Your task to perform on an android device: Clear the shopping cart on costco.com. Add razer blade to the cart on costco.com, then select checkout. Image 0: 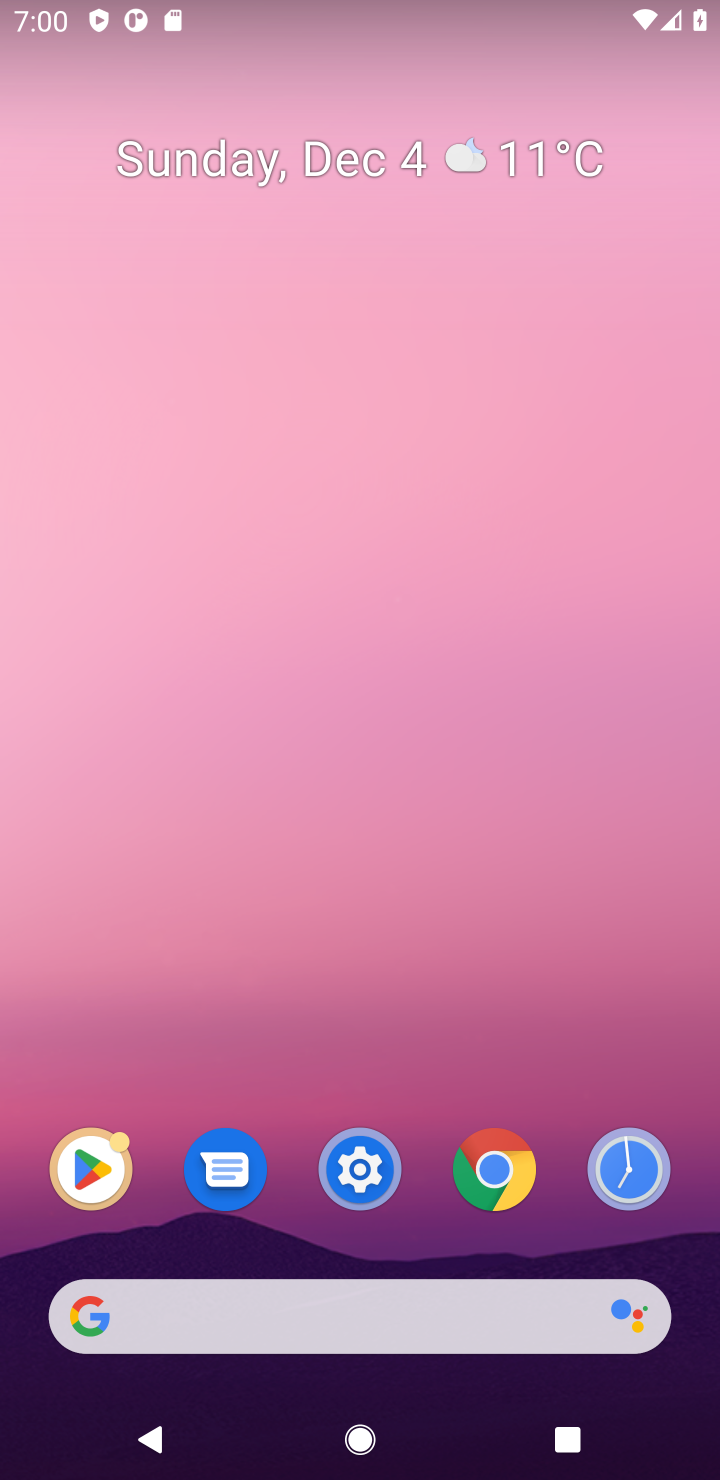
Step 0: drag from (442, 1378) to (399, 121)
Your task to perform on an android device: Clear the shopping cart on costco.com. Add razer blade to the cart on costco.com, then select checkout. Image 1: 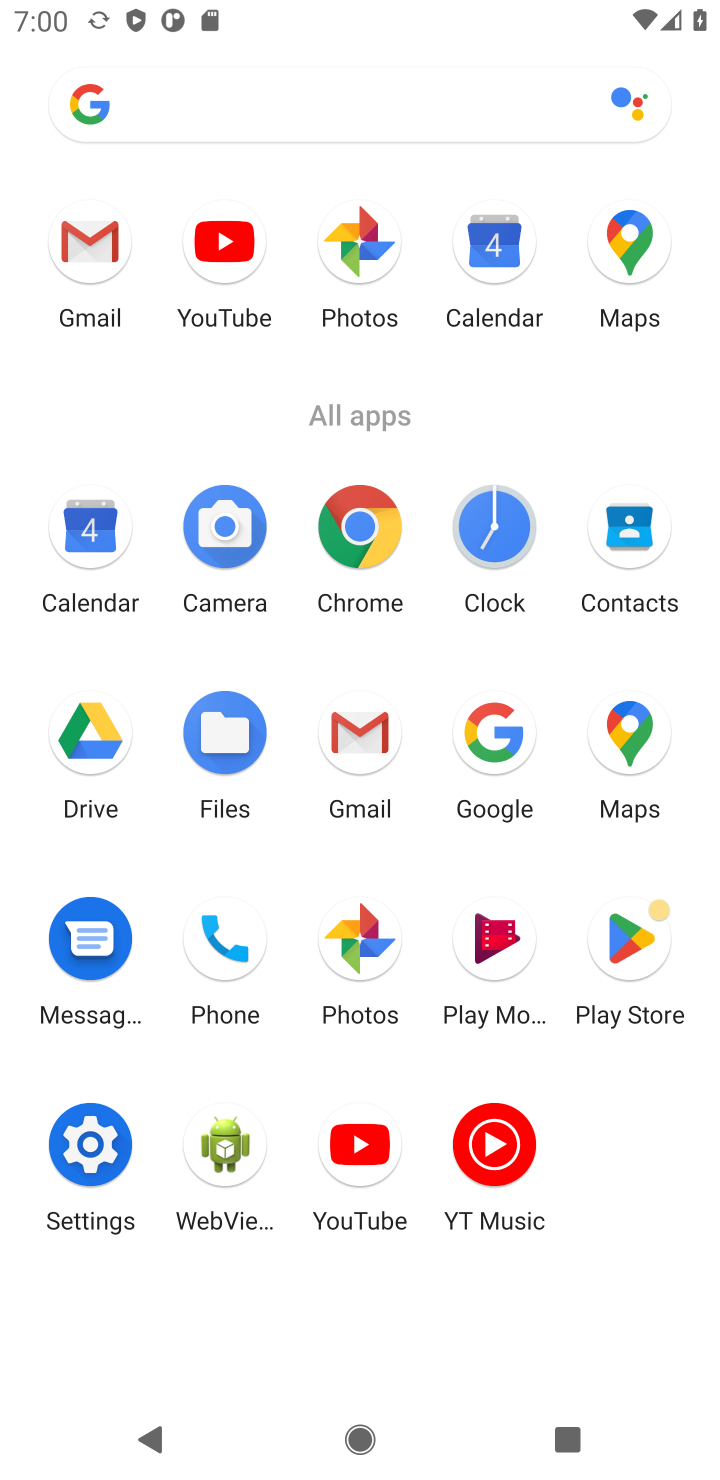
Step 1: click (354, 529)
Your task to perform on an android device: Clear the shopping cart on costco.com. Add razer blade to the cart on costco.com, then select checkout. Image 2: 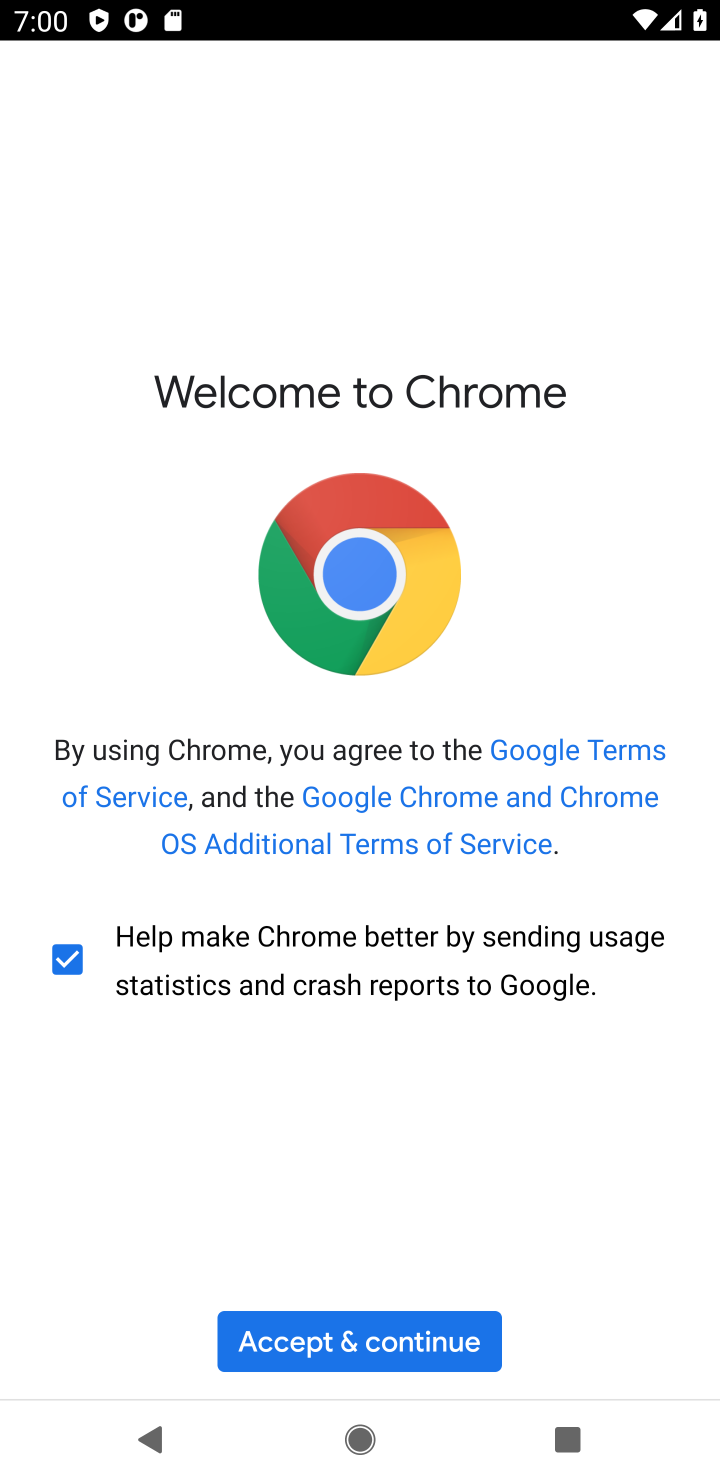
Step 2: click (325, 1336)
Your task to perform on an android device: Clear the shopping cart on costco.com. Add razer blade to the cart on costco.com, then select checkout. Image 3: 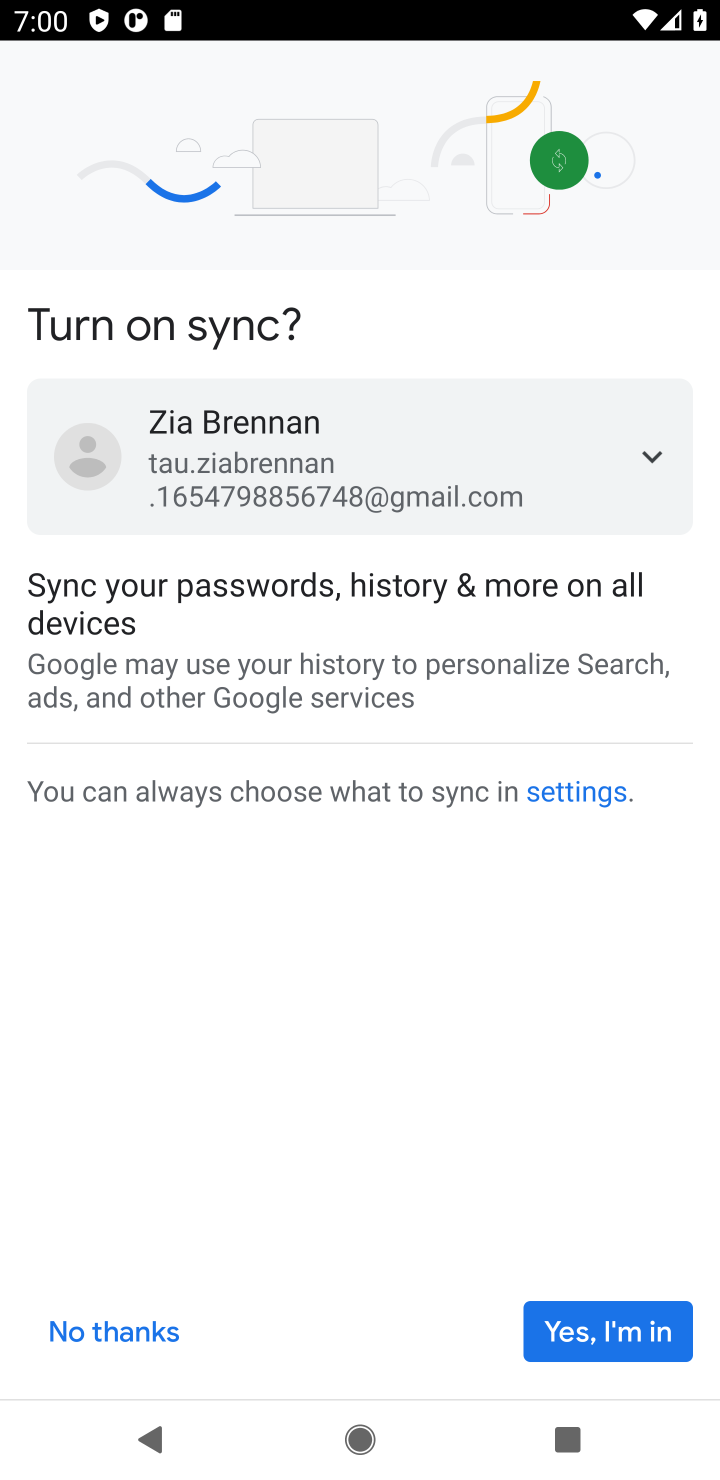
Step 3: click (609, 1333)
Your task to perform on an android device: Clear the shopping cart on costco.com. Add razer blade to the cart on costco.com, then select checkout. Image 4: 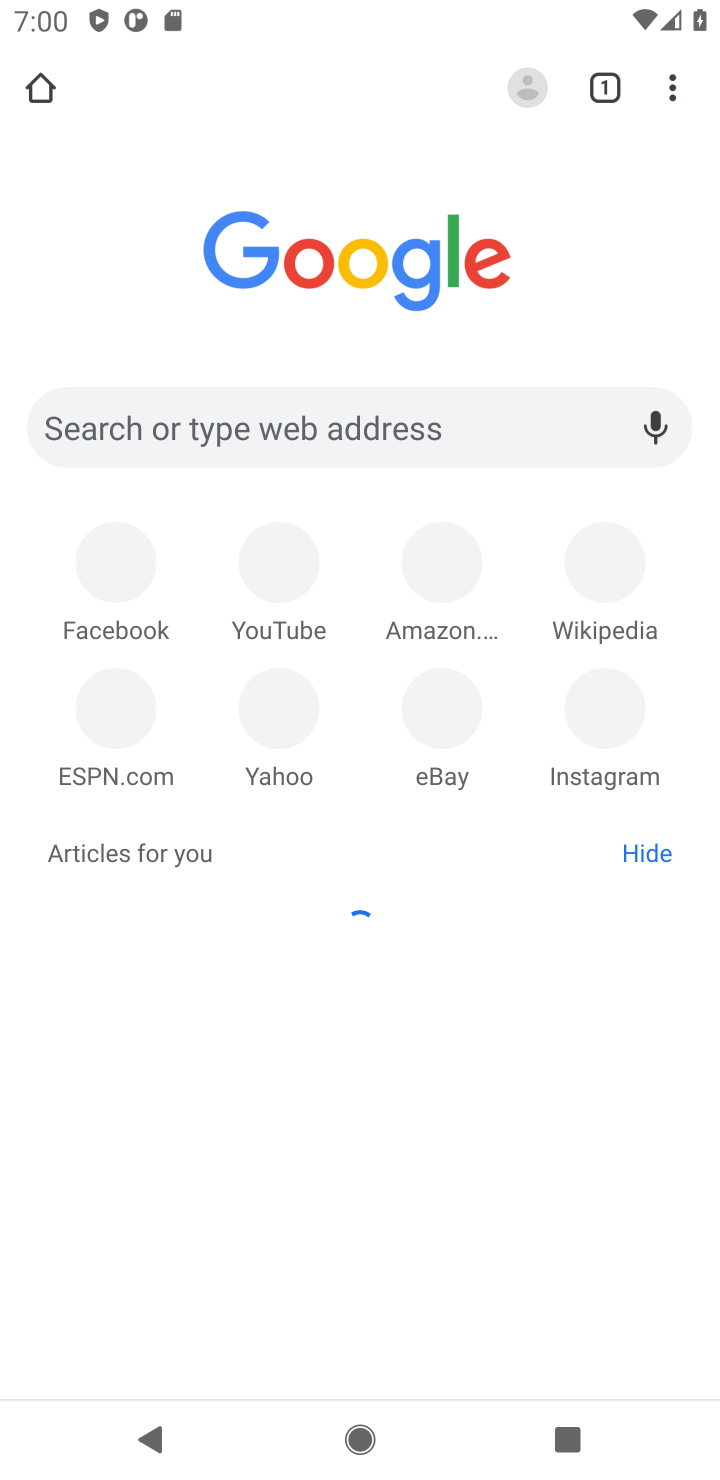
Step 4: click (173, 424)
Your task to perform on an android device: Clear the shopping cart on costco.com. Add razer blade to the cart on costco.com, then select checkout. Image 5: 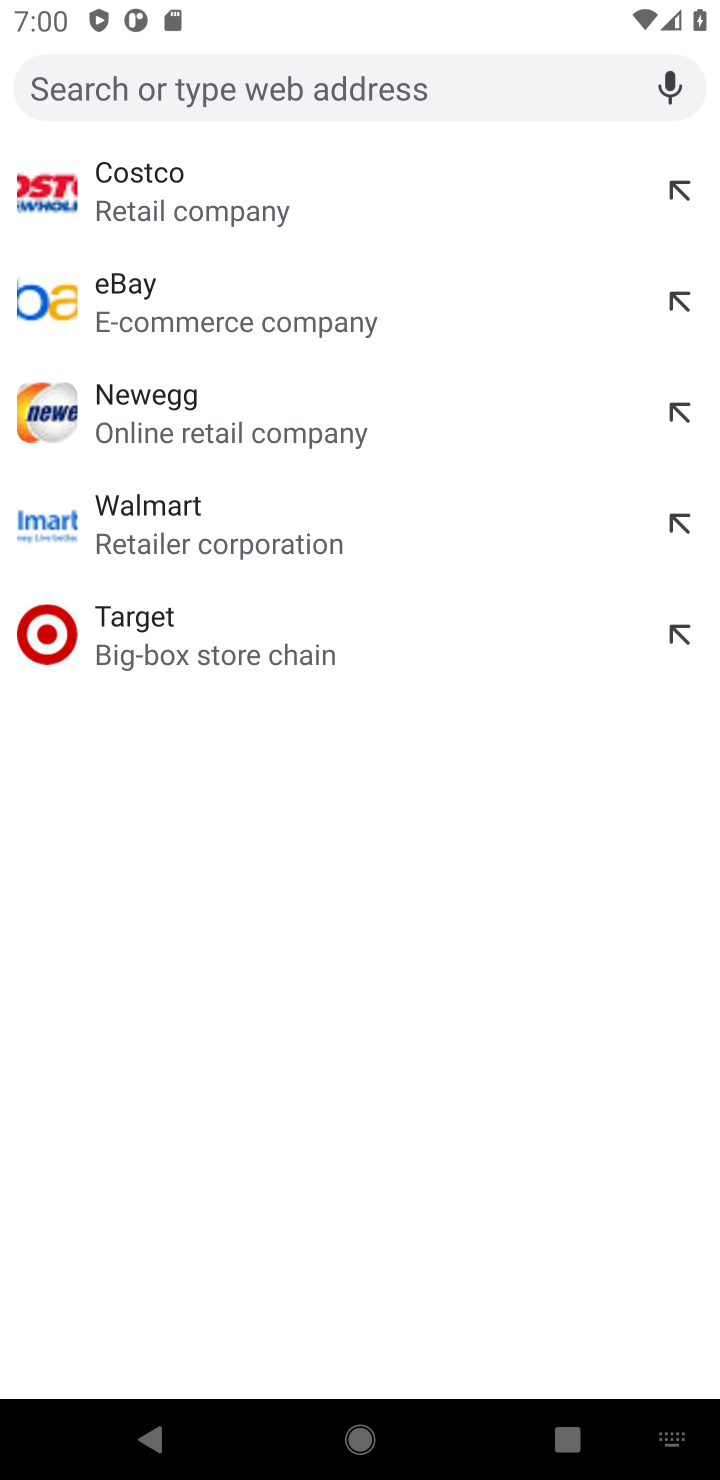
Step 5: type "costco.com"
Your task to perform on an android device: Clear the shopping cart on costco.com. Add razer blade to the cart on costco.com, then select checkout. Image 6: 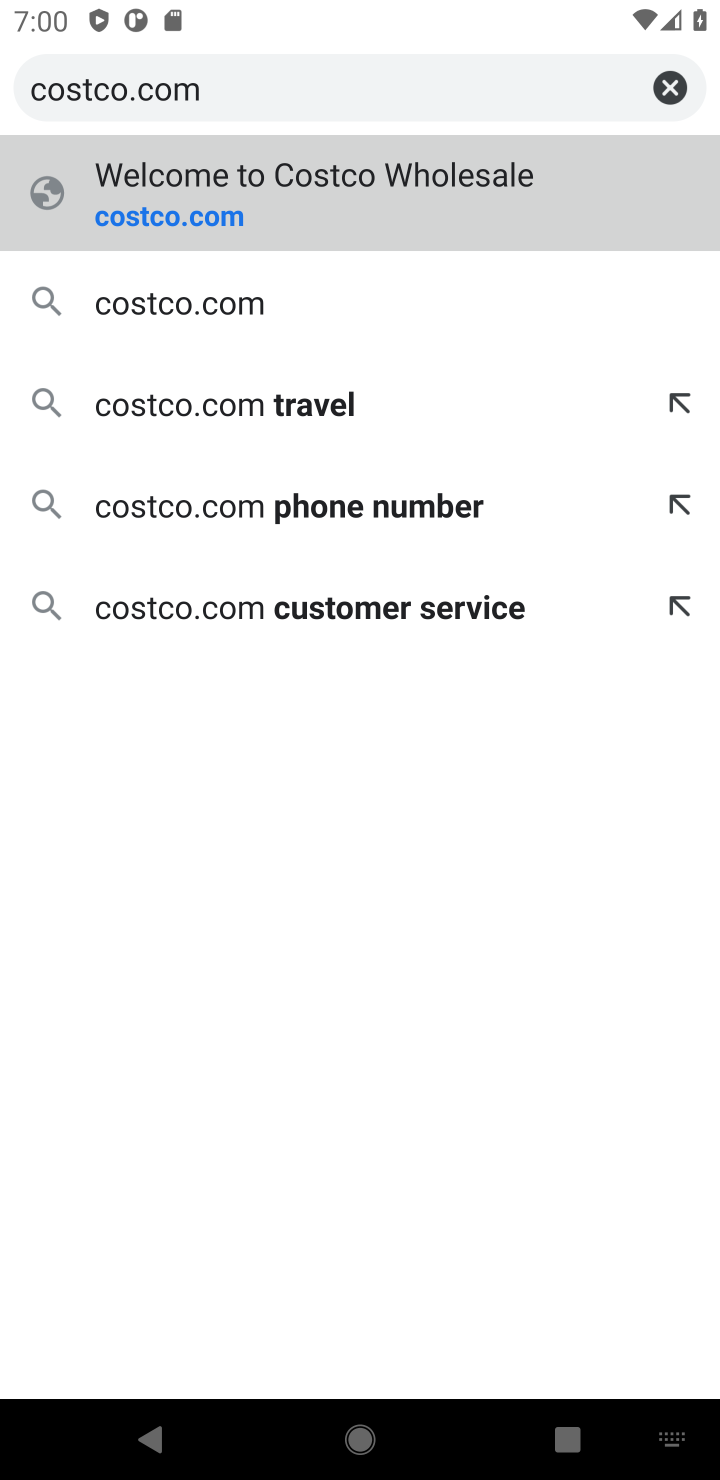
Step 6: click (150, 218)
Your task to perform on an android device: Clear the shopping cart on costco.com. Add razer blade to the cart on costco.com, then select checkout. Image 7: 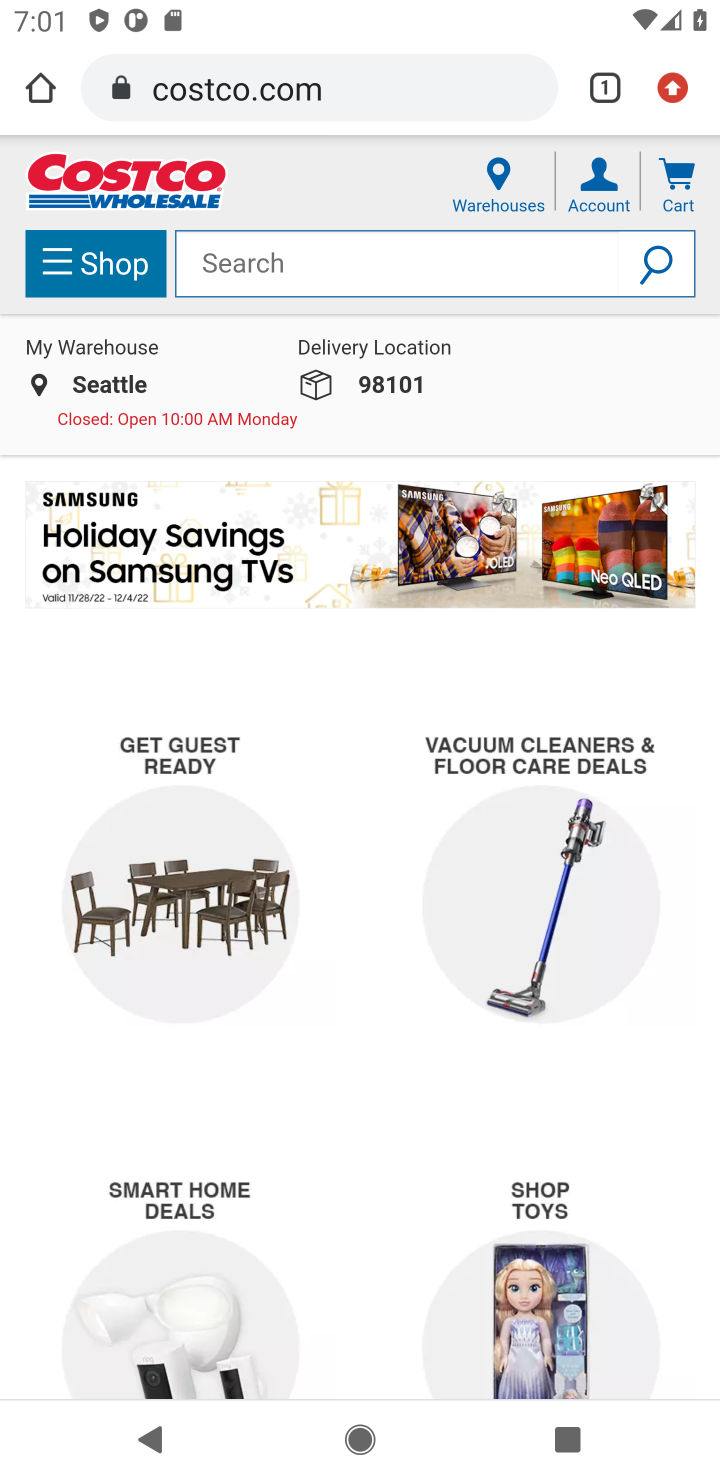
Step 7: click (673, 174)
Your task to perform on an android device: Clear the shopping cart on costco.com. Add razer blade to the cart on costco.com, then select checkout. Image 8: 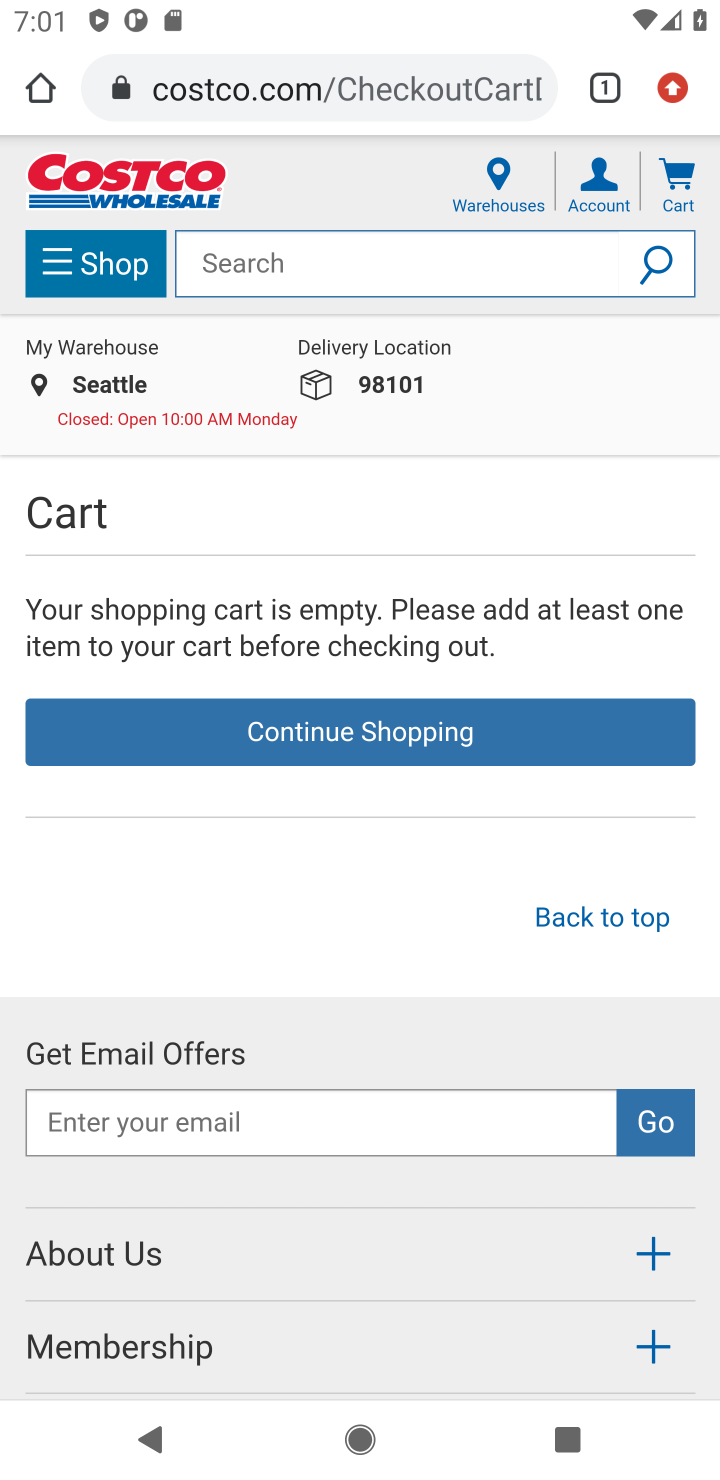
Step 8: click (440, 264)
Your task to perform on an android device: Clear the shopping cart on costco.com. Add razer blade to the cart on costco.com, then select checkout. Image 9: 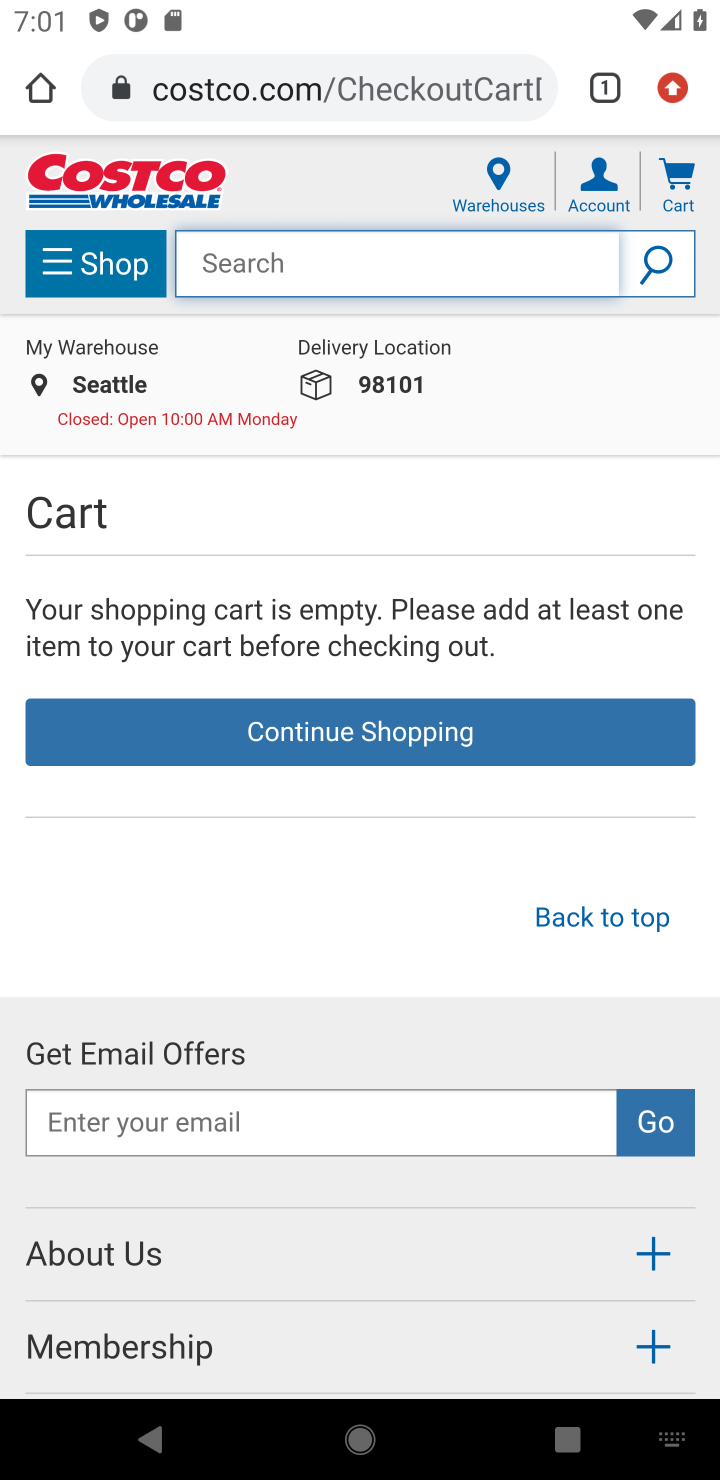
Step 9: type "razer blade"
Your task to perform on an android device: Clear the shopping cart on costco.com. Add razer blade to the cart on costco.com, then select checkout. Image 10: 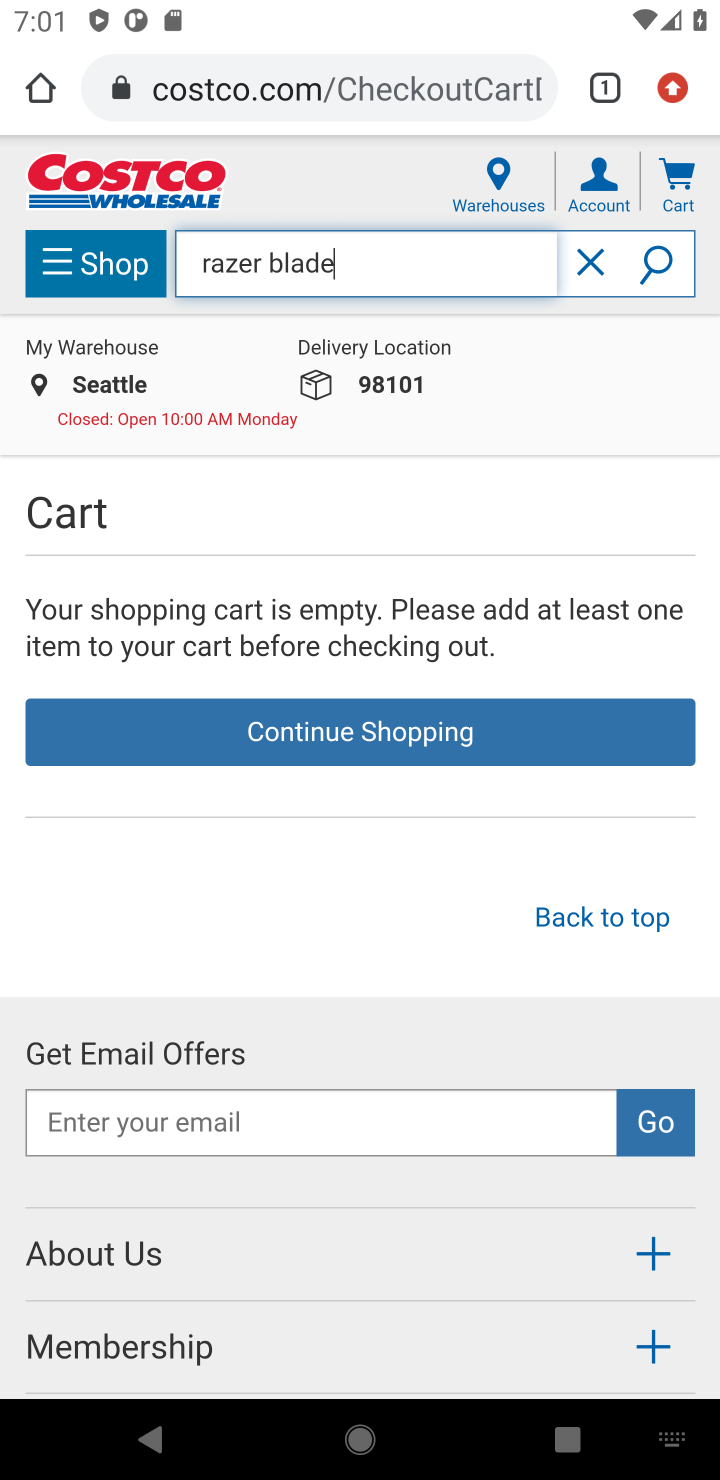
Step 10: type ""
Your task to perform on an android device: Clear the shopping cart on costco.com. Add razer blade to the cart on costco.com, then select checkout. Image 11: 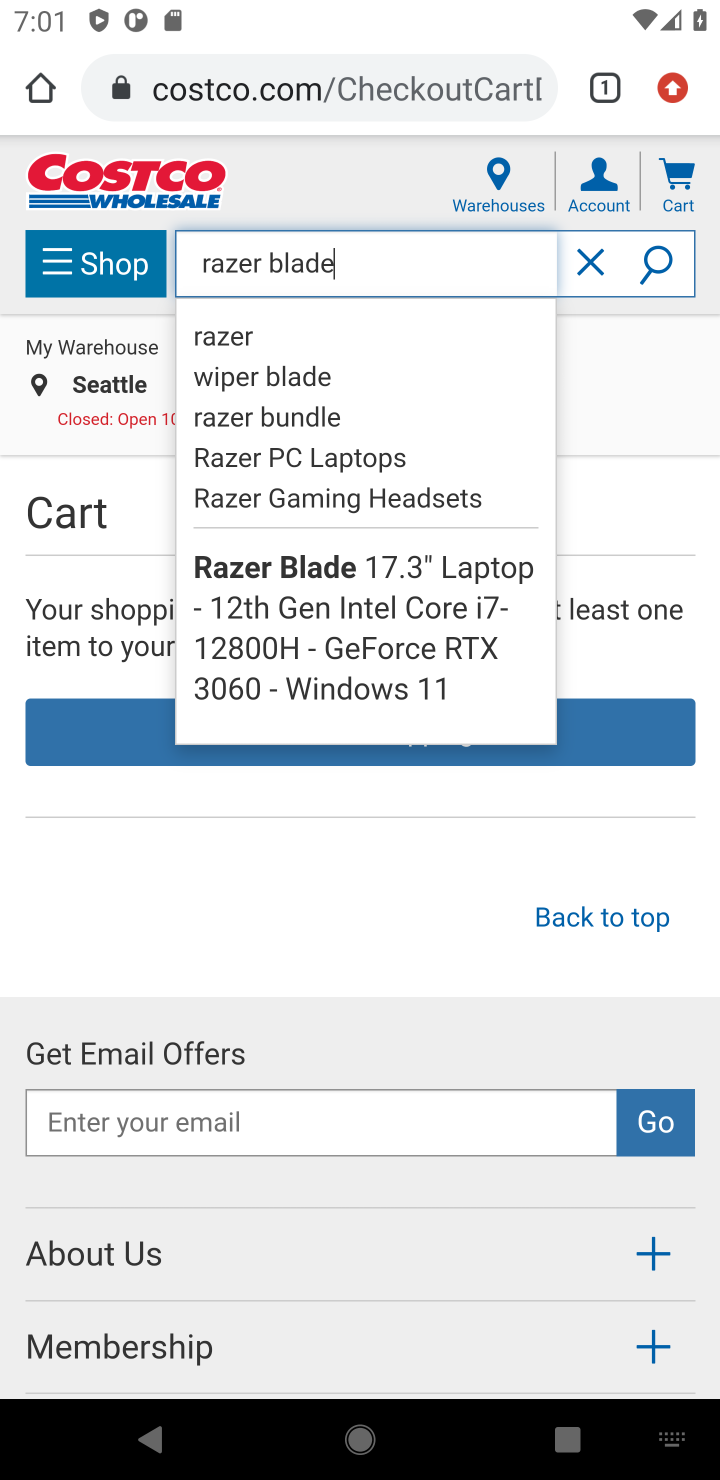
Step 11: click (663, 249)
Your task to perform on an android device: Clear the shopping cart on costco.com. Add razer blade to the cart on costco.com, then select checkout. Image 12: 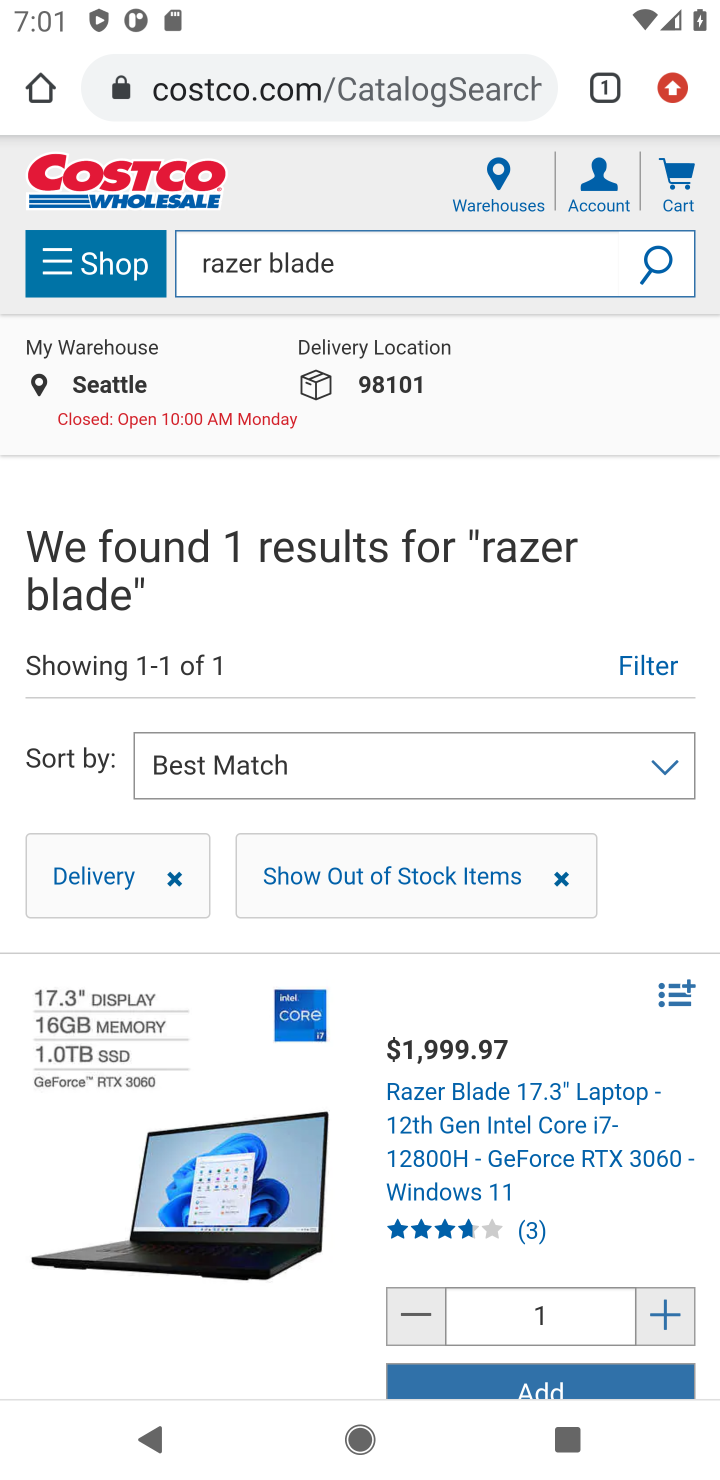
Step 12: drag from (602, 1038) to (591, 595)
Your task to perform on an android device: Clear the shopping cart on costco.com. Add razer blade to the cart on costco.com, then select checkout. Image 13: 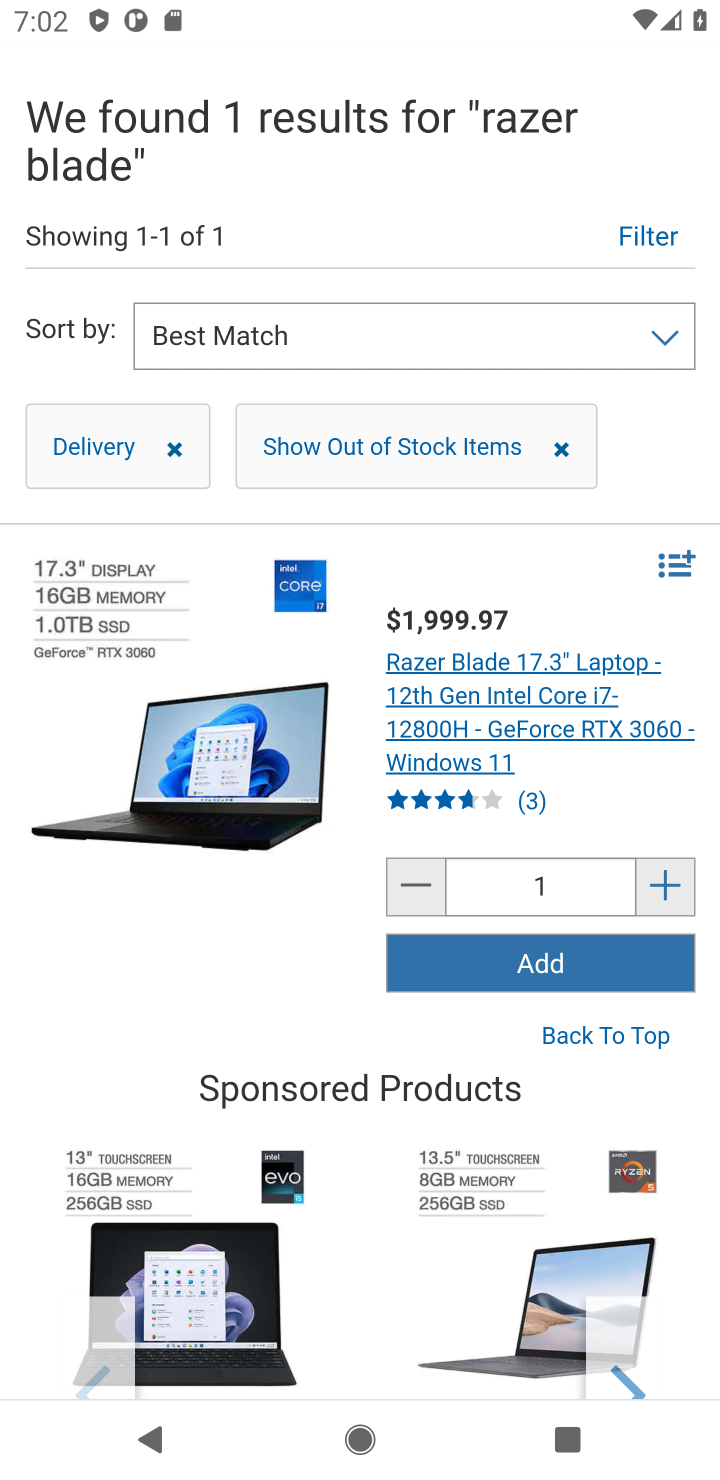
Step 13: click (536, 961)
Your task to perform on an android device: Clear the shopping cart on costco.com. Add razer blade to the cart on costco.com, then select checkout. Image 14: 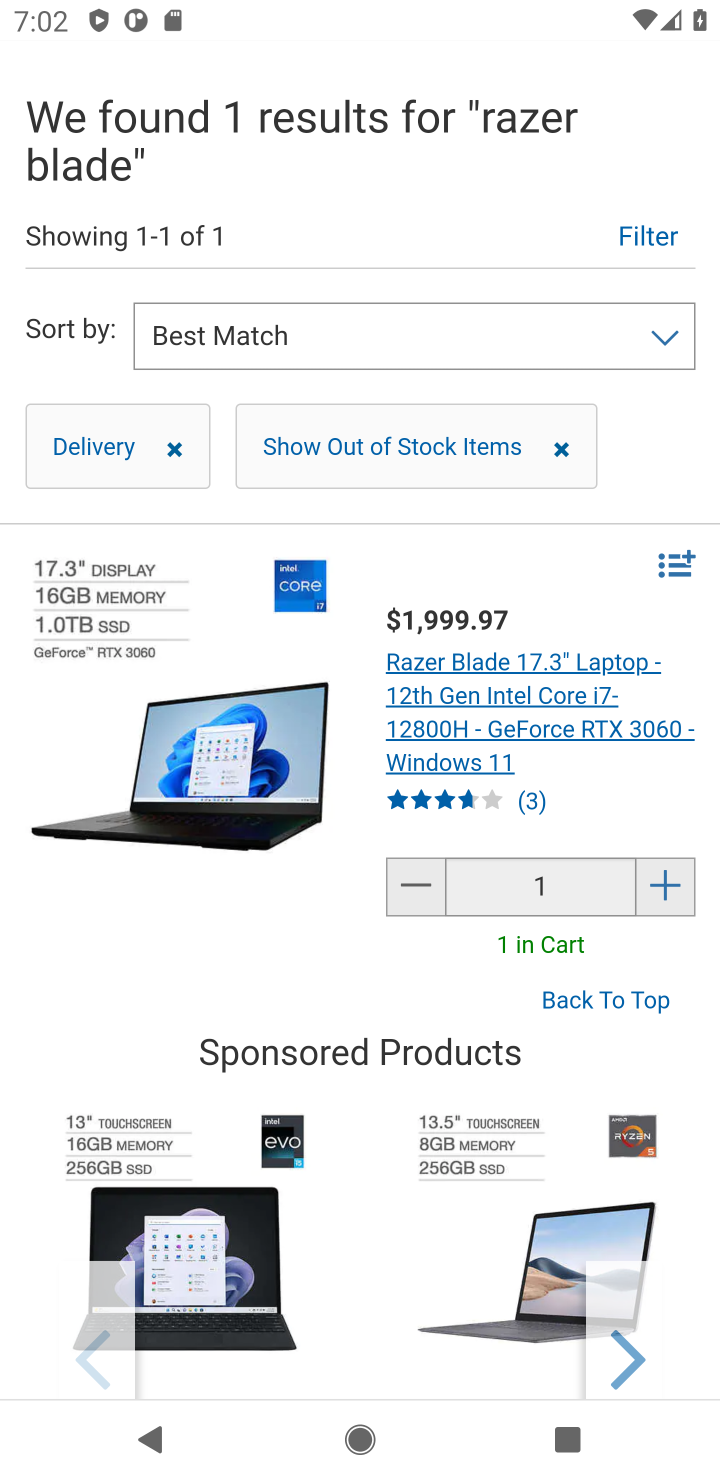
Step 14: task complete